Your task to perform on an android device: turn smart compose on in the gmail app Image 0: 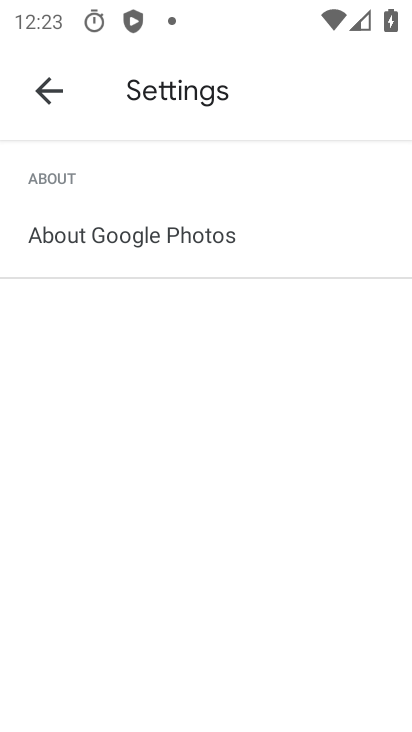
Step 0: press back button
Your task to perform on an android device: turn smart compose on in the gmail app Image 1: 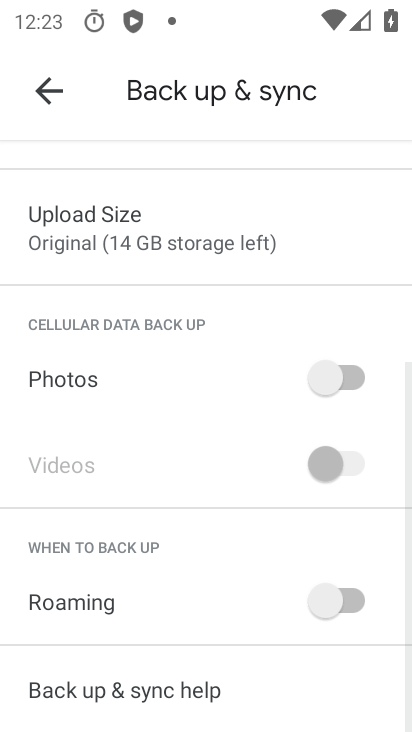
Step 1: press home button
Your task to perform on an android device: turn smart compose on in the gmail app Image 2: 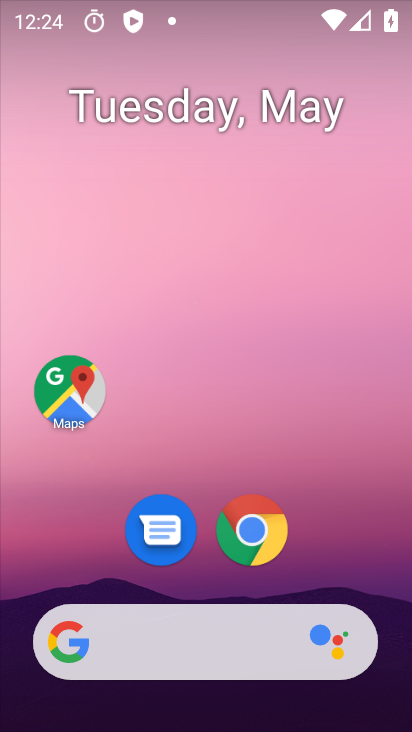
Step 2: drag from (355, 534) to (267, 54)
Your task to perform on an android device: turn smart compose on in the gmail app Image 3: 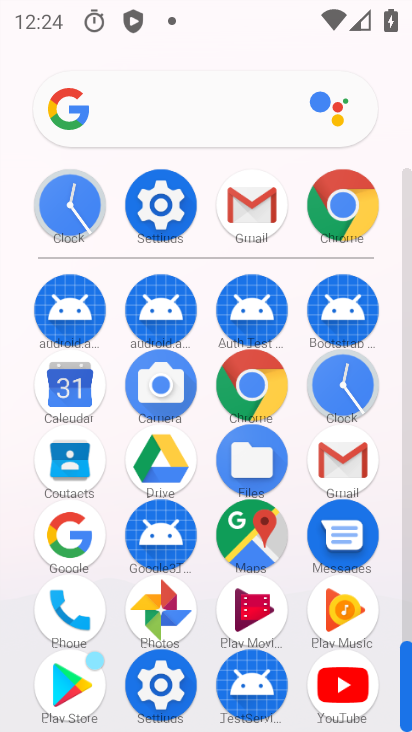
Step 3: click (251, 197)
Your task to perform on an android device: turn smart compose on in the gmail app Image 4: 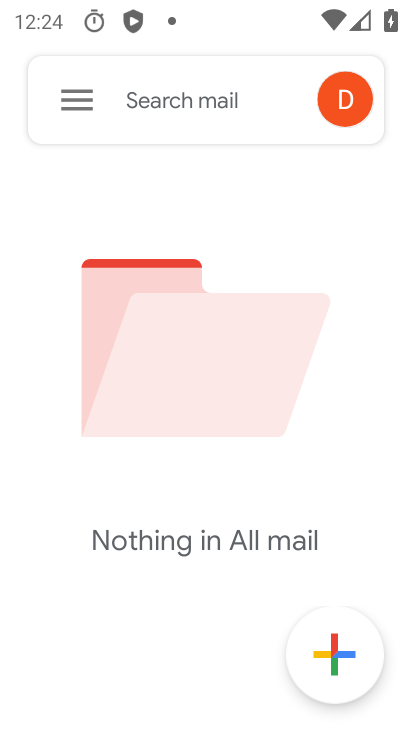
Step 4: click (79, 91)
Your task to perform on an android device: turn smart compose on in the gmail app Image 5: 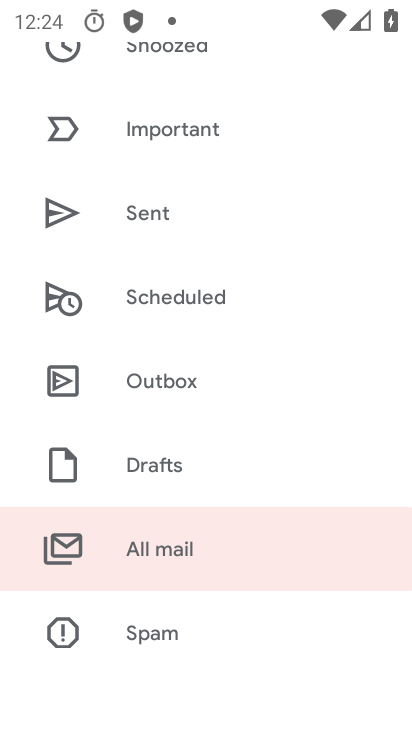
Step 5: drag from (243, 639) to (243, 118)
Your task to perform on an android device: turn smart compose on in the gmail app Image 6: 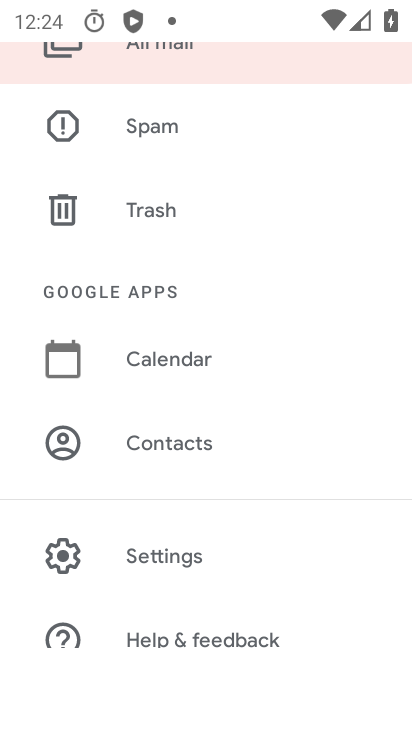
Step 6: click (189, 545)
Your task to perform on an android device: turn smart compose on in the gmail app Image 7: 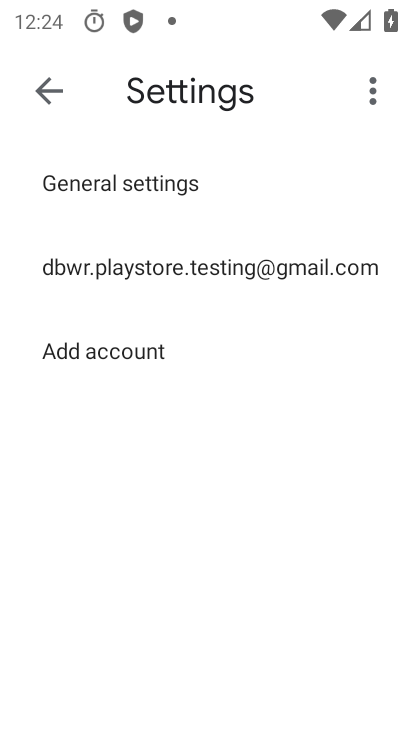
Step 7: click (207, 269)
Your task to perform on an android device: turn smart compose on in the gmail app Image 8: 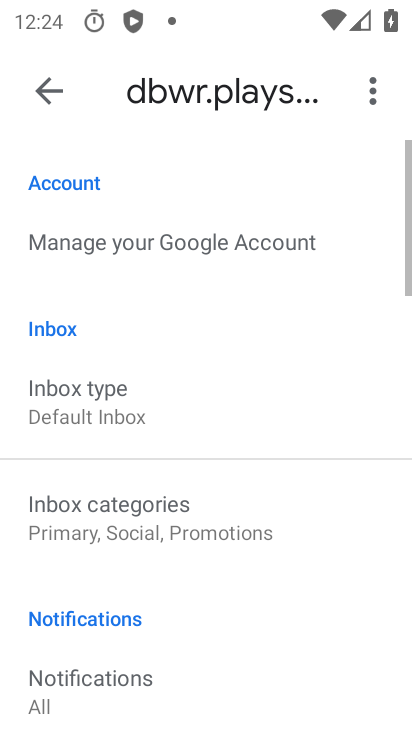
Step 8: task complete